Your task to perform on an android device: toggle show notifications on the lock screen Image 0: 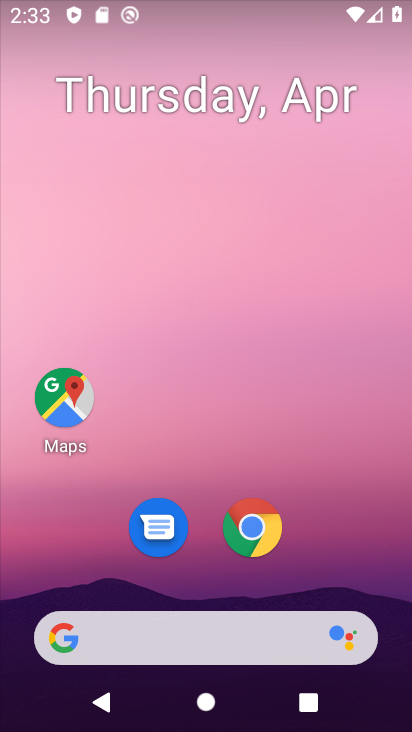
Step 0: drag from (271, 312) to (396, 4)
Your task to perform on an android device: toggle show notifications on the lock screen Image 1: 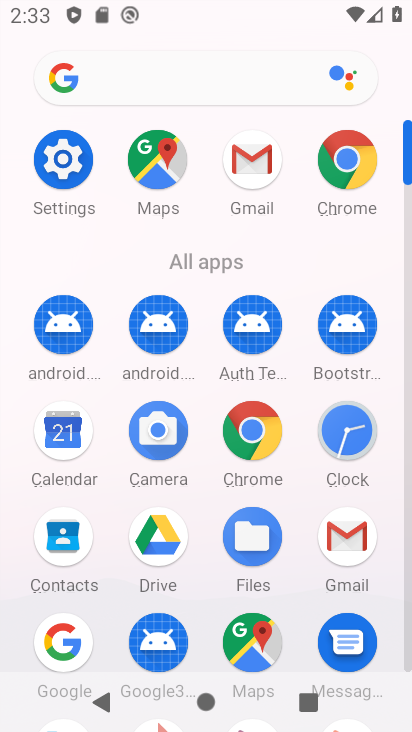
Step 1: click (73, 166)
Your task to perform on an android device: toggle show notifications on the lock screen Image 2: 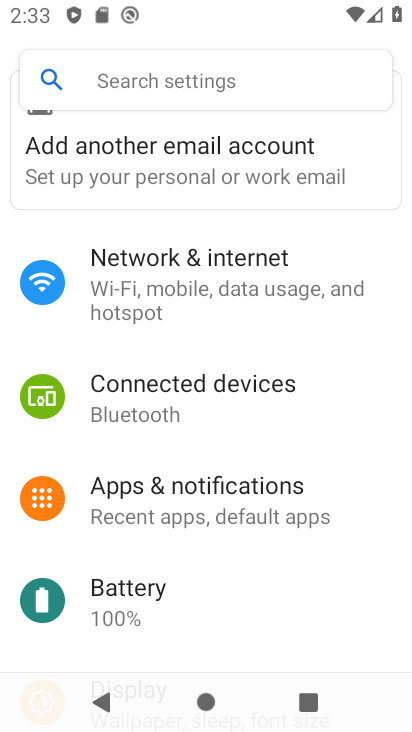
Step 2: click (202, 508)
Your task to perform on an android device: toggle show notifications on the lock screen Image 3: 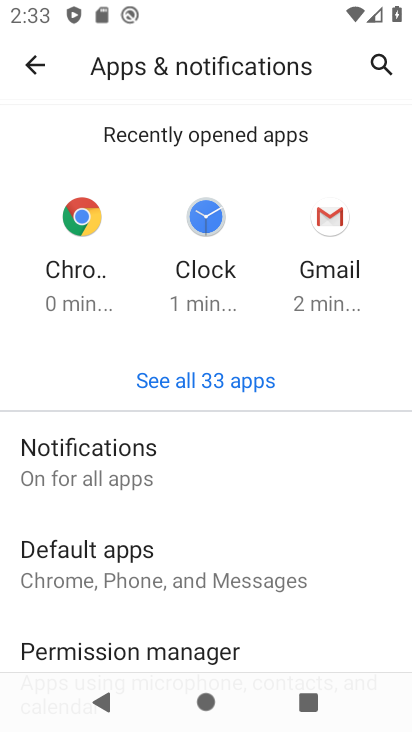
Step 3: drag from (160, 592) to (234, 204)
Your task to perform on an android device: toggle show notifications on the lock screen Image 4: 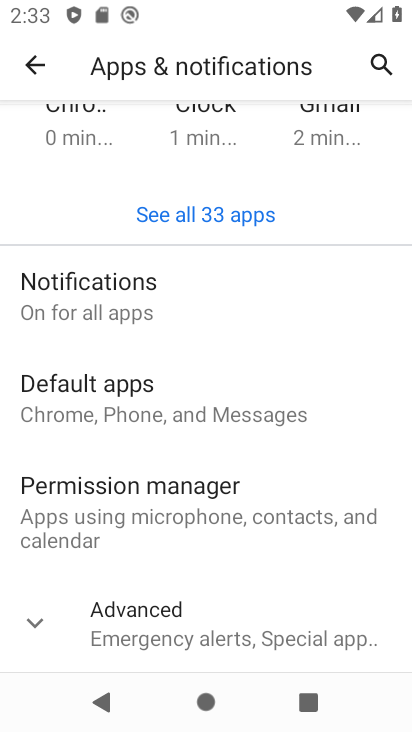
Step 4: drag from (200, 567) to (248, 421)
Your task to perform on an android device: toggle show notifications on the lock screen Image 5: 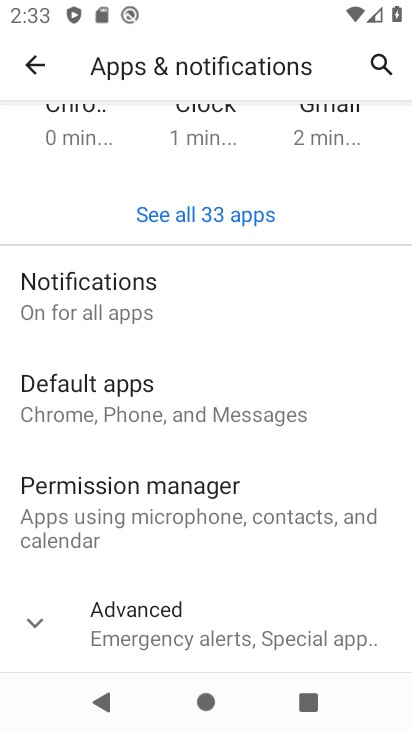
Step 5: click (103, 297)
Your task to perform on an android device: toggle show notifications on the lock screen Image 6: 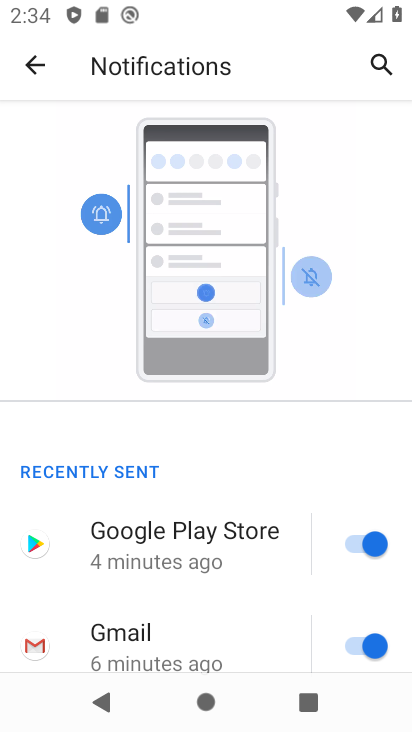
Step 6: drag from (133, 592) to (205, 251)
Your task to perform on an android device: toggle show notifications on the lock screen Image 7: 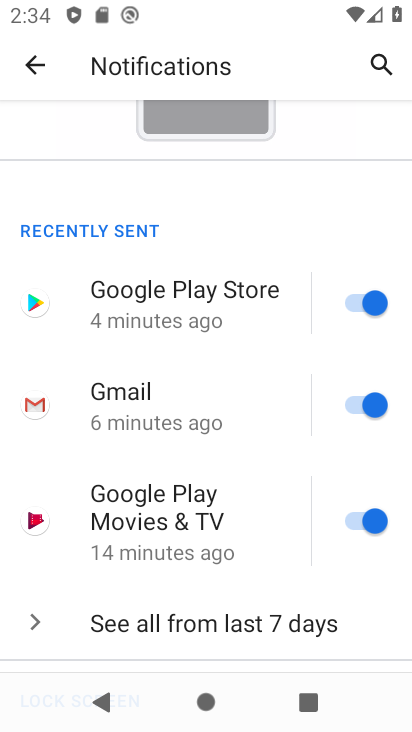
Step 7: drag from (170, 515) to (222, 191)
Your task to perform on an android device: toggle show notifications on the lock screen Image 8: 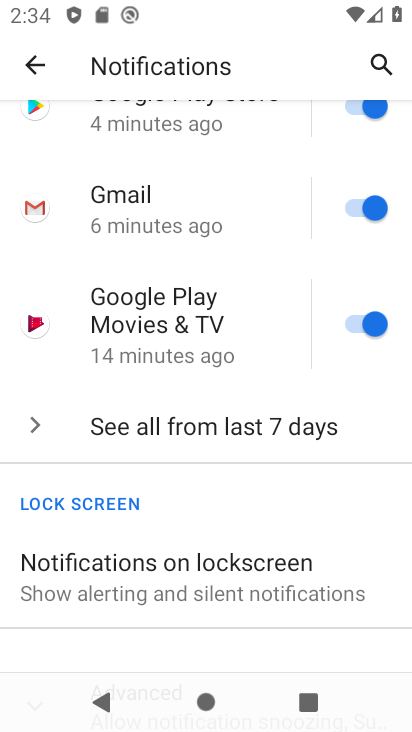
Step 8: drag from (178, 591) to (223, 431)
Your task to perform on an android device: toggle show notifications on the lock screen Image 9: 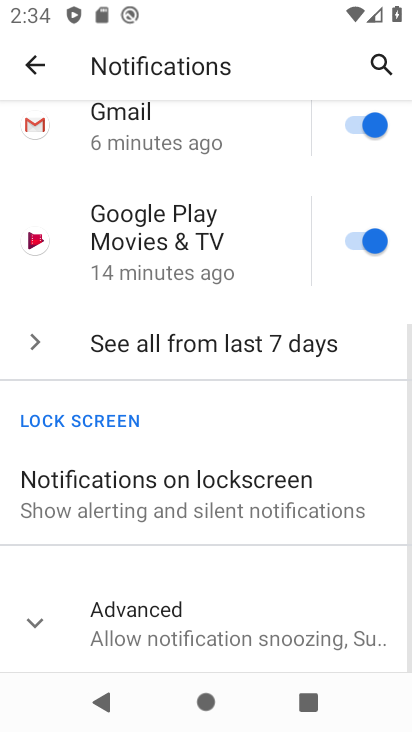
Step 9: click (178, 518)
Your task to perform on an android device: toggle show notifications on the lock screen Image 10: 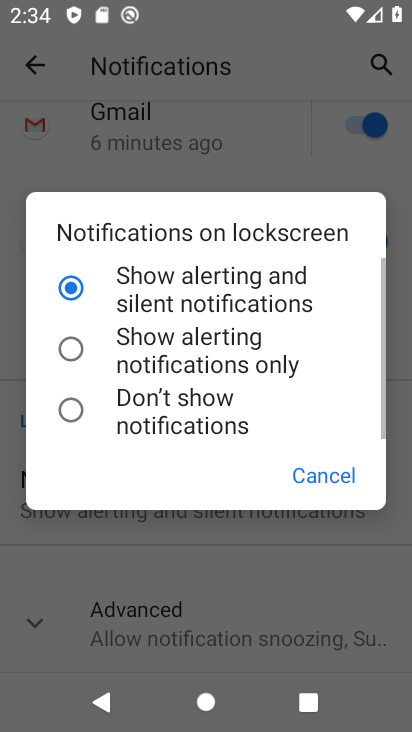
Step 10: click (77, 423)
Your task to perform on an android device: toggle show notifications on the lock screen Image 11: 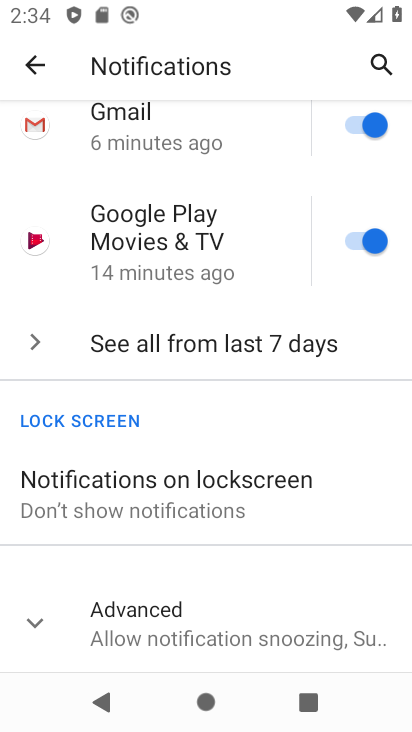
Step 11: task complete